Your task to perform on an android device: turn pop-ups off in chrome Image 0: 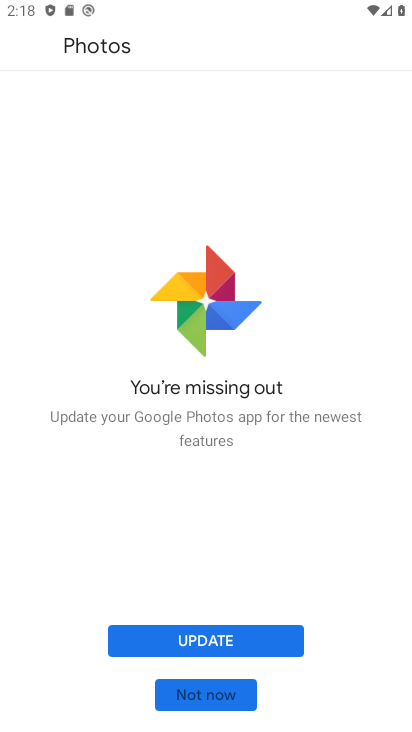
Step 0: press home button
Your task to perform on an android device: turn pop-ups off in chrome Image 1: 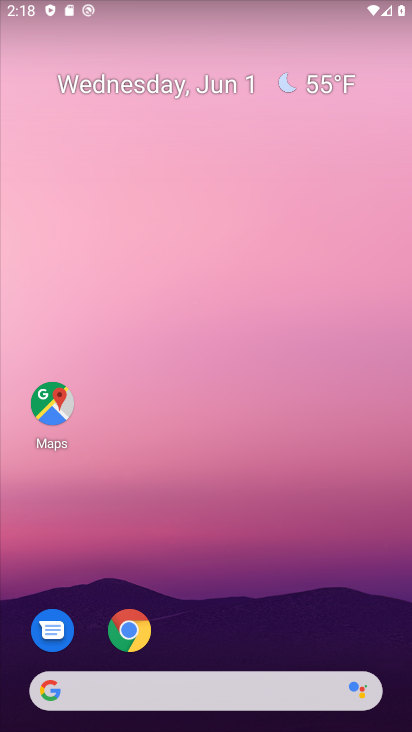
Step 1: click (124, 625)
Your task to perform on an android device: turn pop-ups off in chrome Image 2: 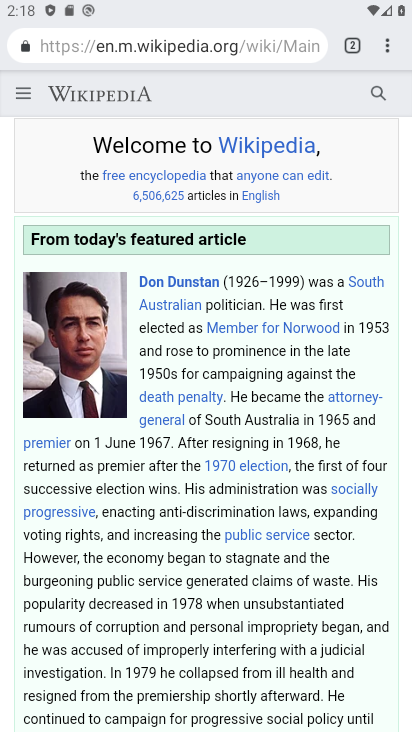
Step 2: drag from (387, 45) to (267, 542)
Your task to perform on an android device: turn pop-ups off in chrome Image 3: 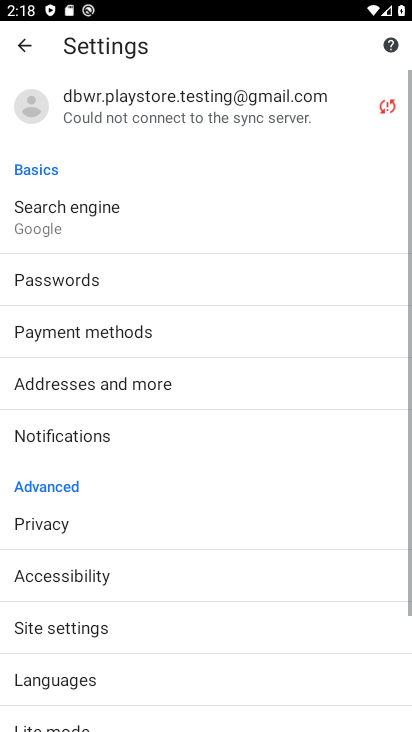
Step 3: drag from (113, 694) to (251, 407)
Your task to perform on an android device: turn pop-ups off in chrome Image 4: 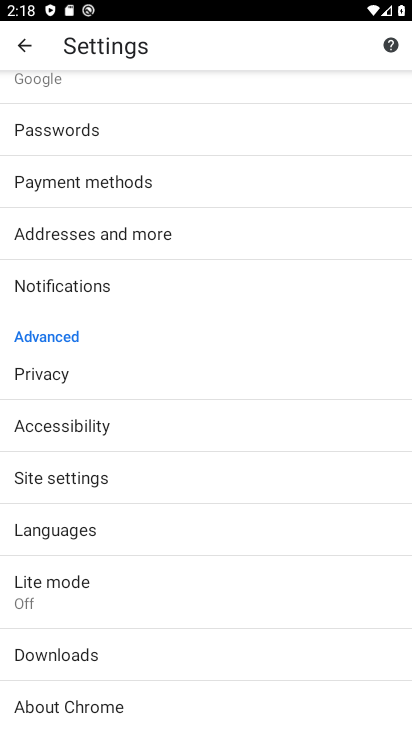
Step 4: click (135, 467)
Your task to perform on an android device: turn pop-ups off in chrome Image 5: 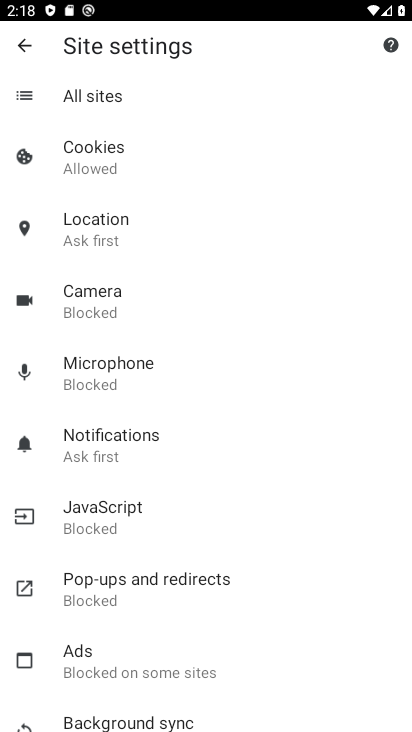
Step 5: click (191, 593)
Your task to perform on an android device: turn pop-ups off in chrome Image 6: 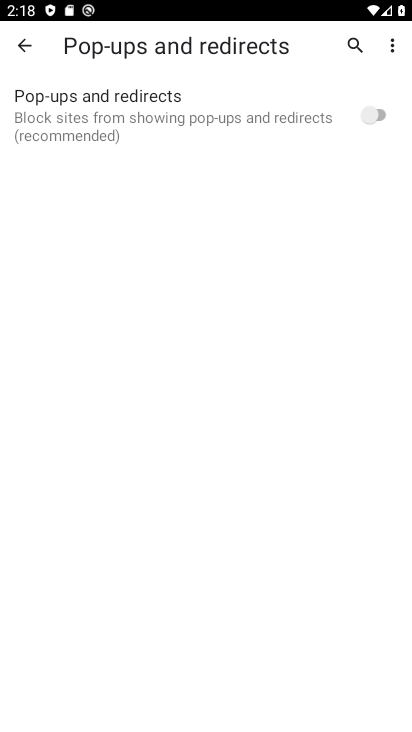
Step 6: task complete